Your task to perform on an android device: turn off notifications settings in the gmail app Image 0: 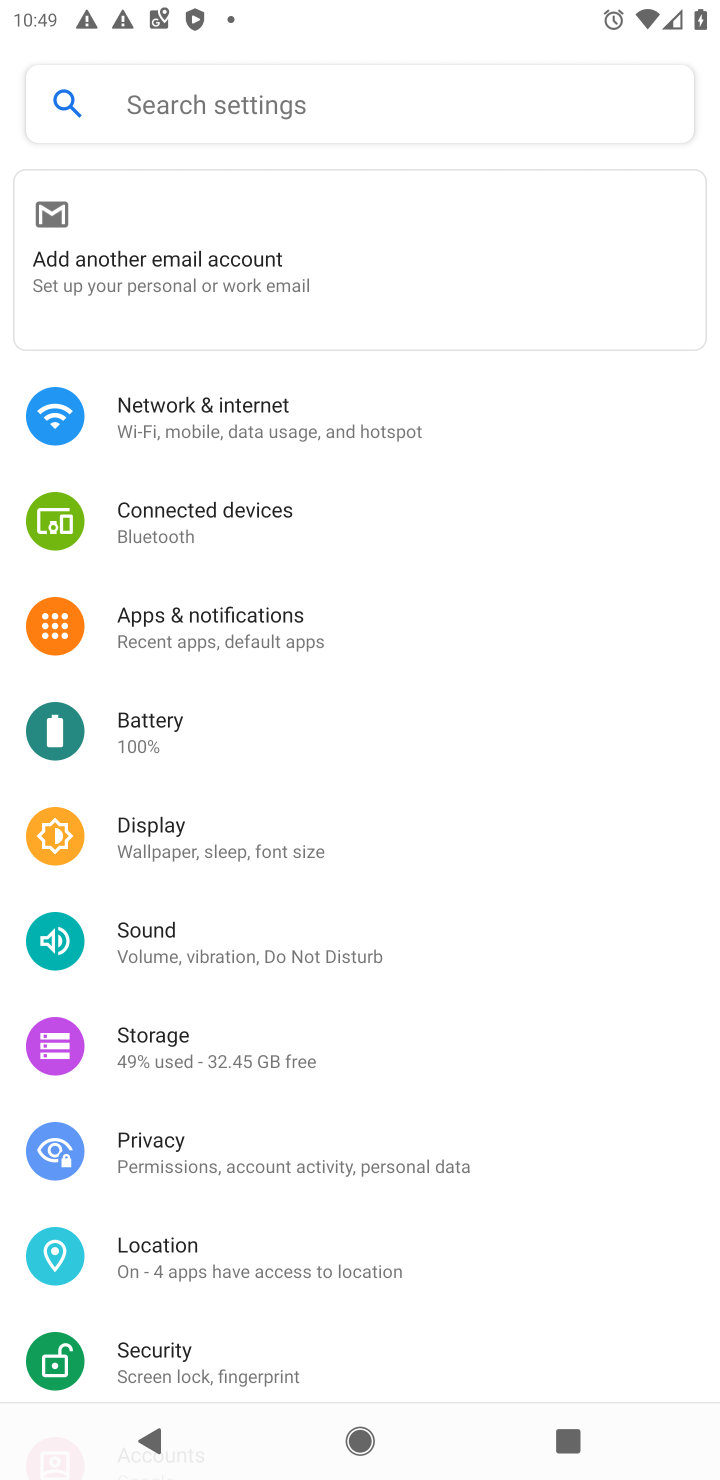
Step 0: press home button
Your task to perform on an android device: turn off notifications settings in the gmail app Image 1: 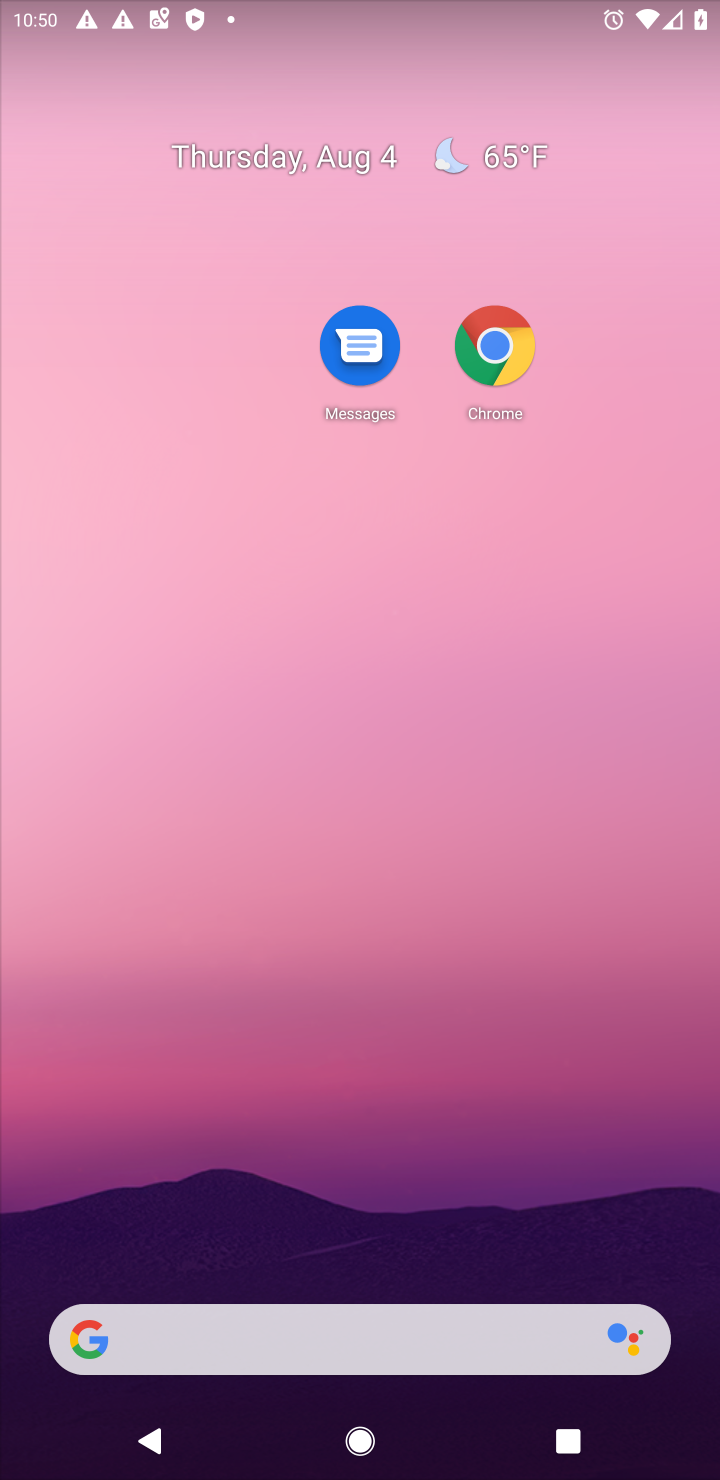
Step 1: drag from (411, 1258) to (441, 336)
Your task to perform on an android device: turn off notifications settings in the gmail app Image 2: 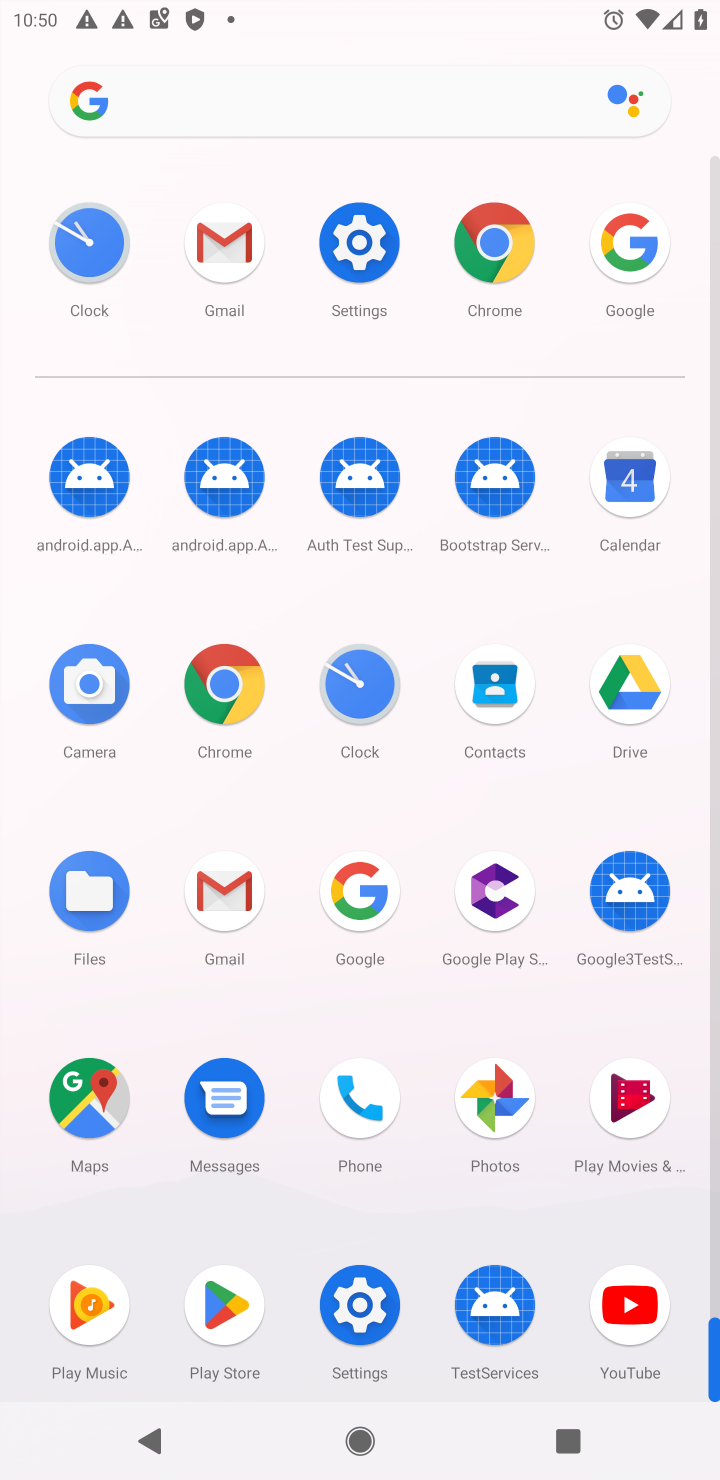
Step 2: click (230, 233)
Your task to perform on an android device: turn off notifications settings in the gmail app Image 3: 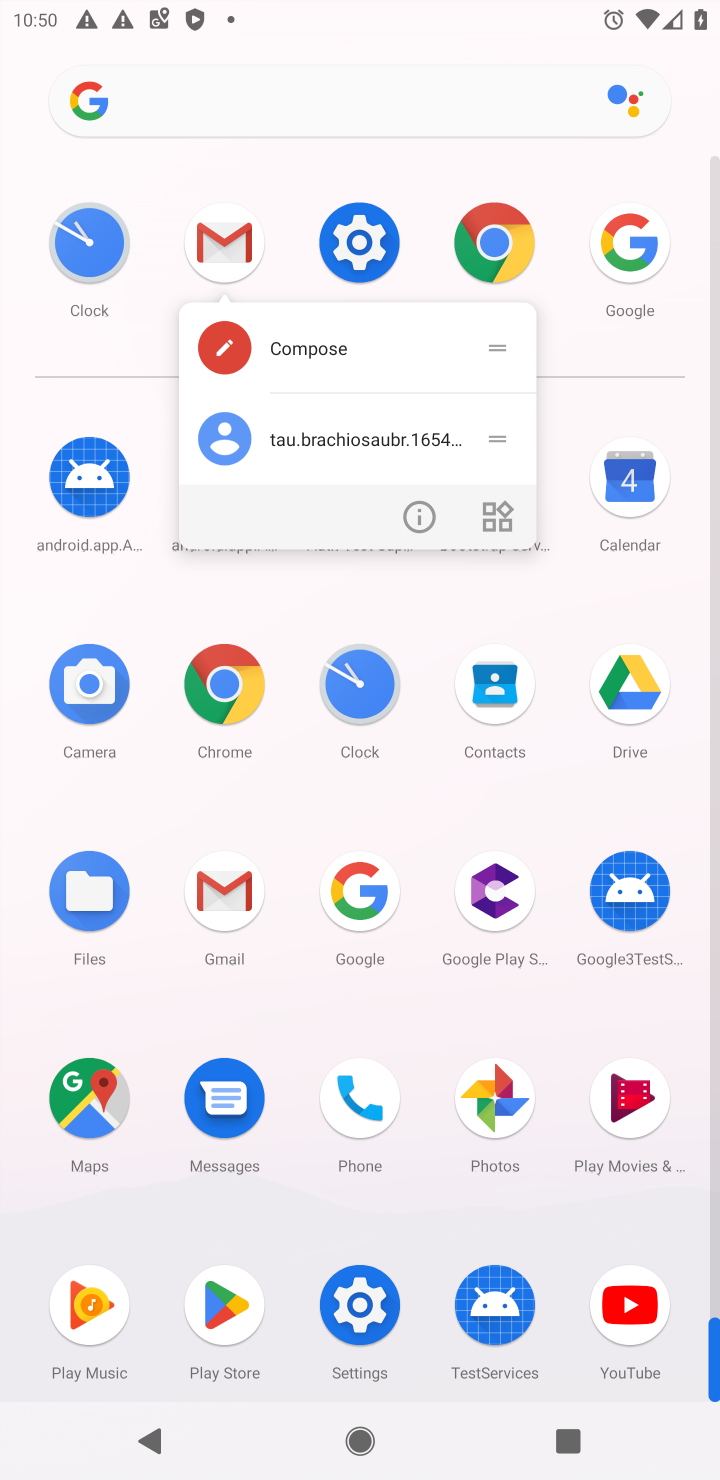
Step 3: click (204, 247)
Your task to perform on an android device: turn off notifications settings in the gmail app Image 4: 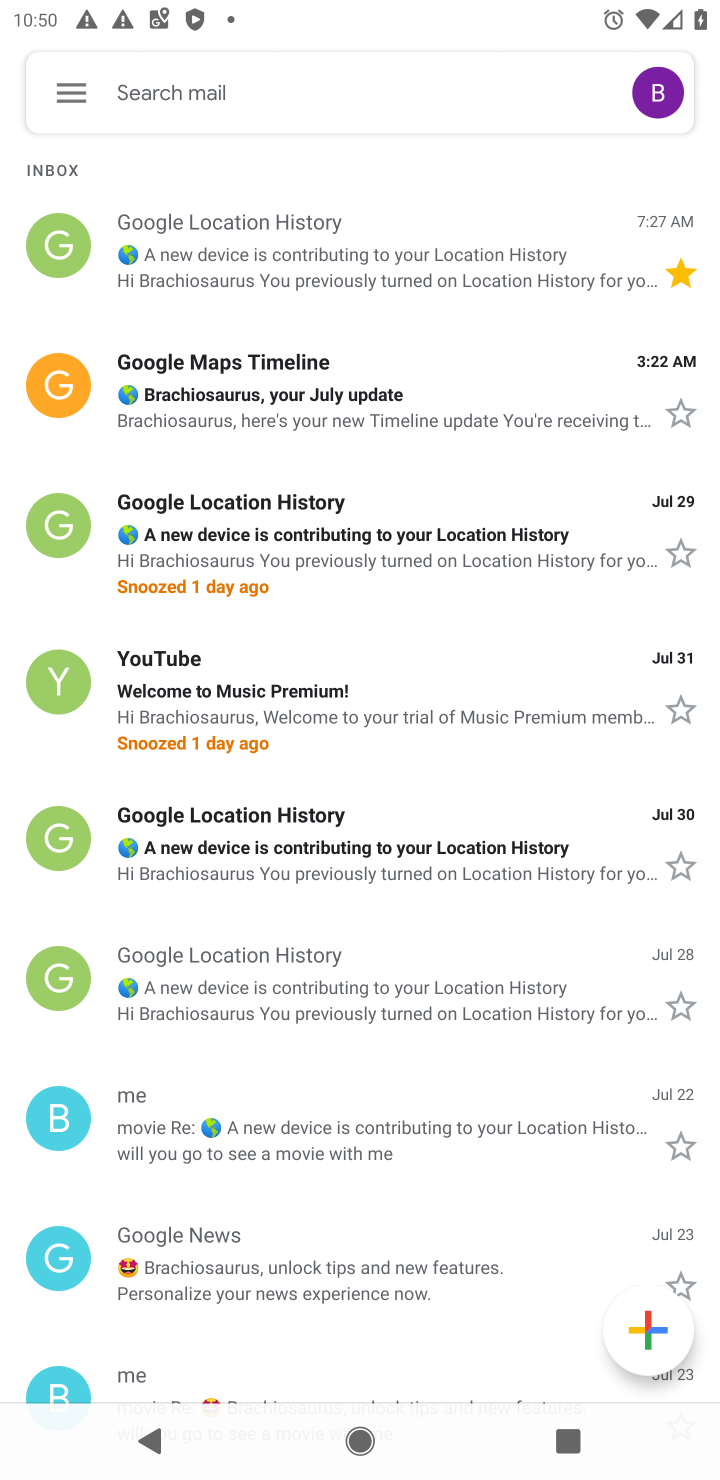
Step 4: click (65, 105)
Your task to perform on an android device: turn off notifications settings in the gmail app Image 5: 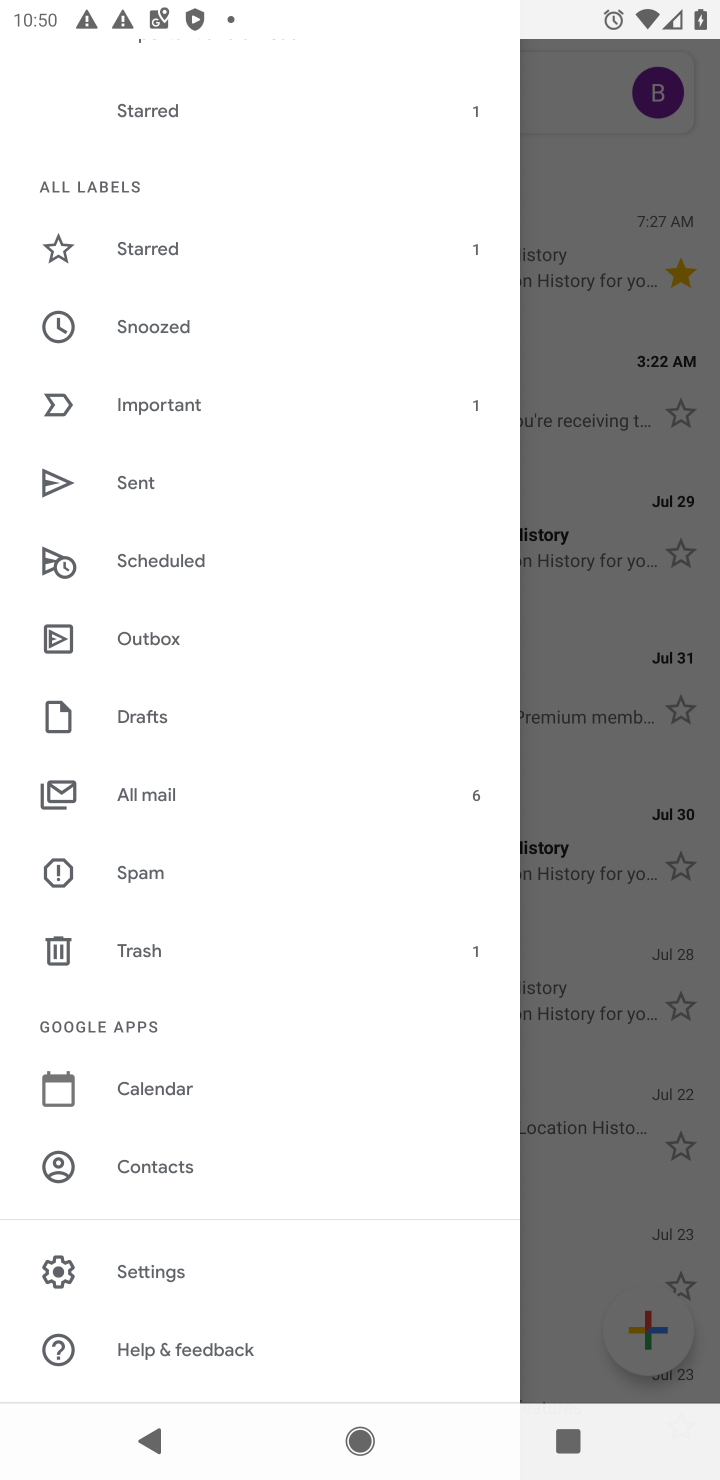
Step 5: click (153, 1265)
Your task to perform on an android device: turn off notifications settings in the gmail app Image 6: 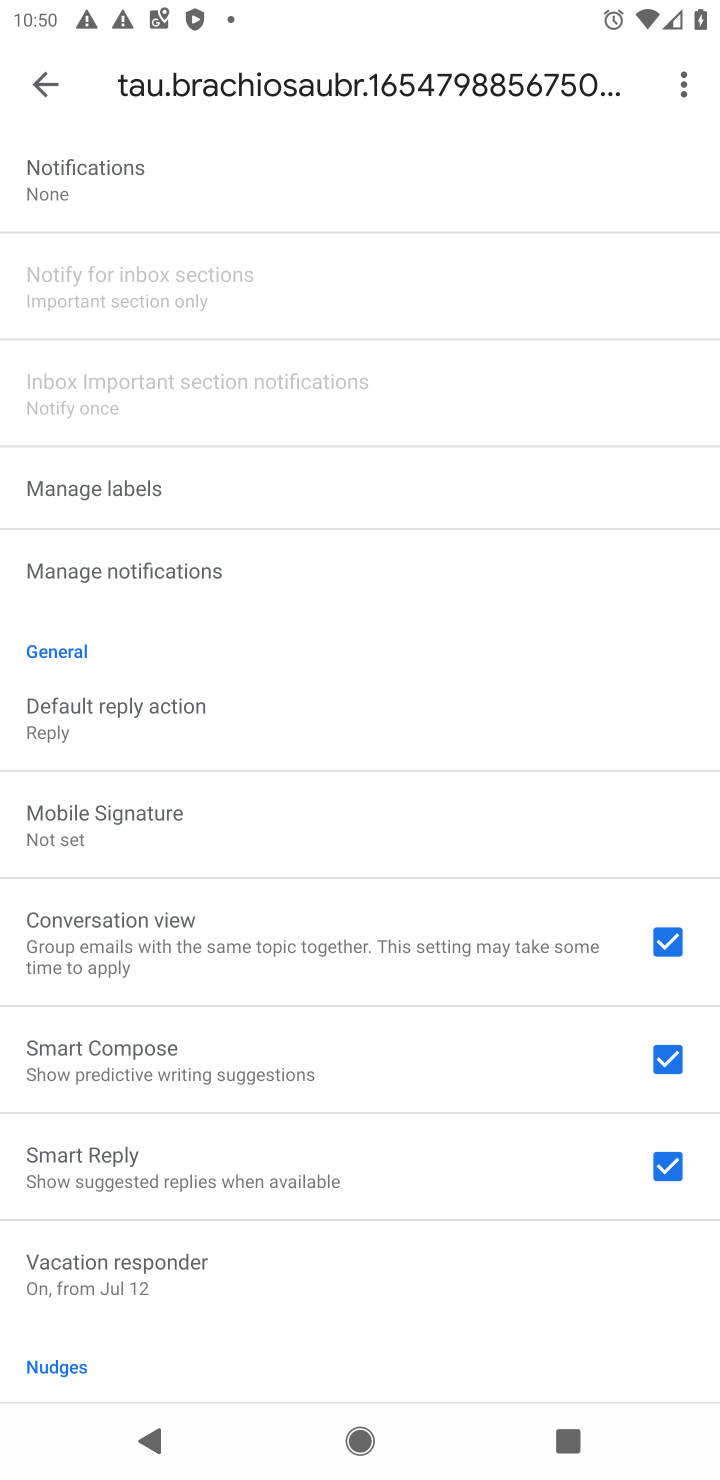
Step 6: drag from (244, 539) to (319, 1173)
Your task to perform on an android device: turn off notifications settings in the gmail app Image 7: 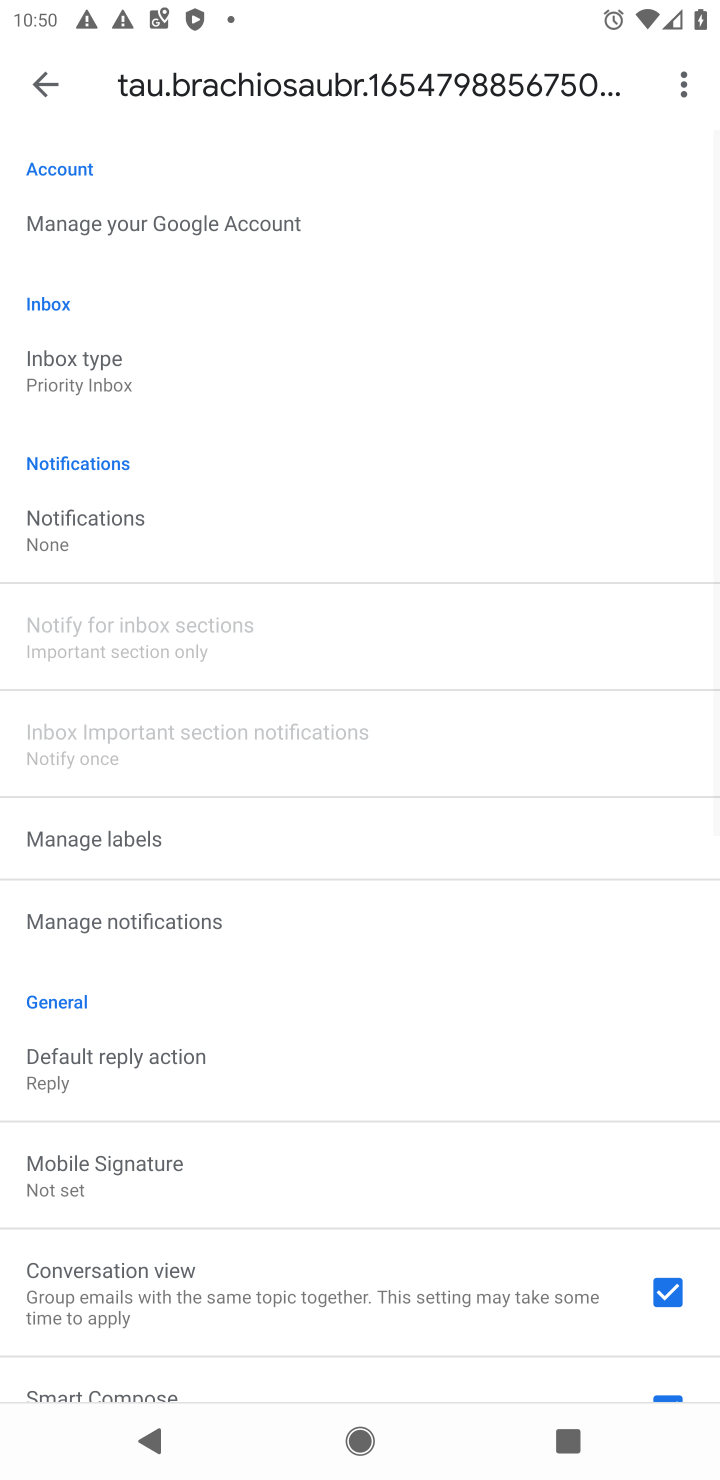
Step 7: click (69, 535)
Your task to perform on an android device: turn off notifications settings in the gmail app Image 8: 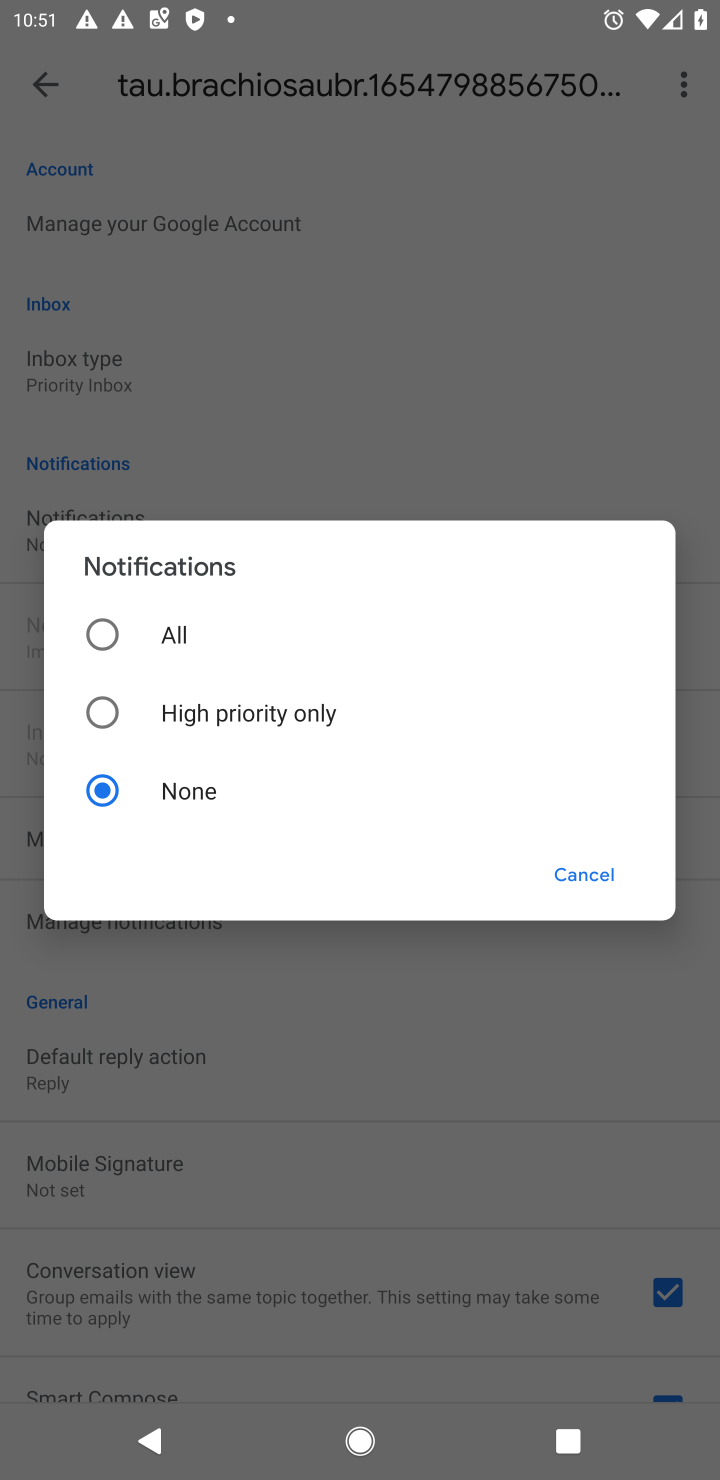
Step 8: task complete